Your task to perform on an android device: turn off sleep mode Image 0: 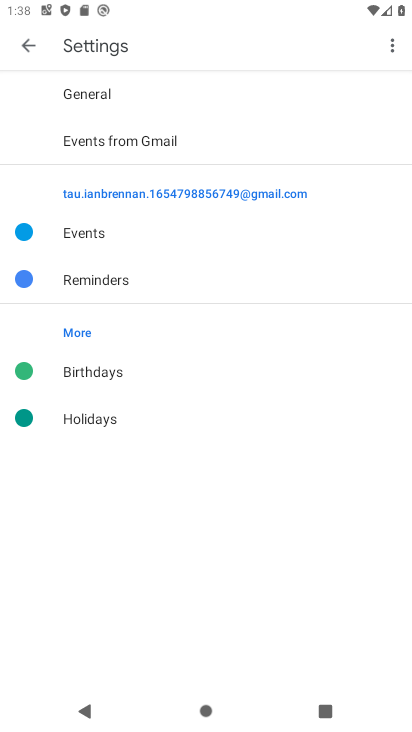
Step 0: press home button
Your task to perform on an android device: turn off sleep mode Image 1: 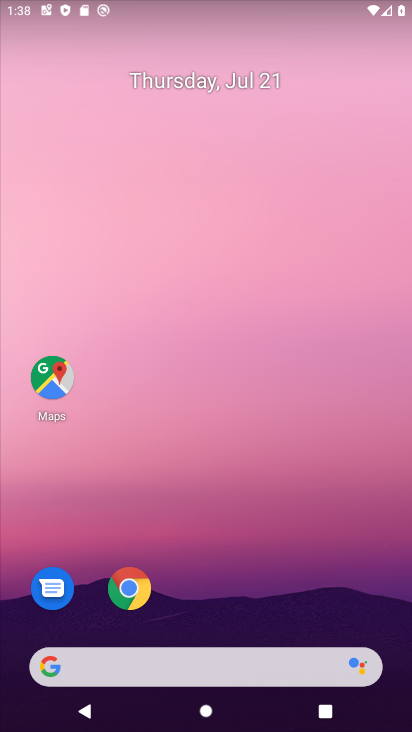
Step 1: drag from (195, 644) to (176, 27)
Your task to perform on an android device: turn off sleep mode Image 2: 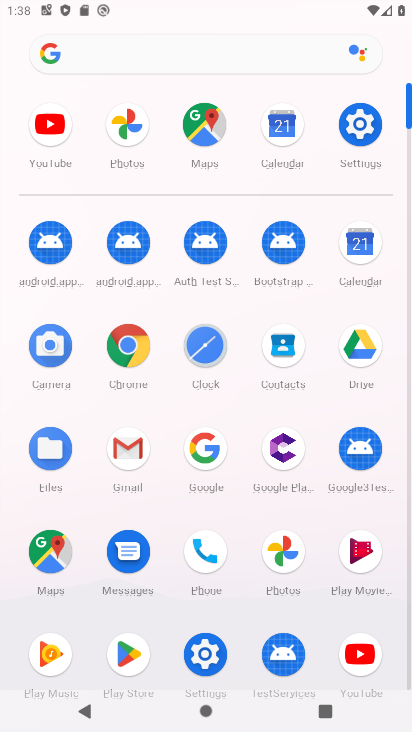
Step 2: click (356, 107)
Your task to perform on an android device: turn off sleep mode Image 3: 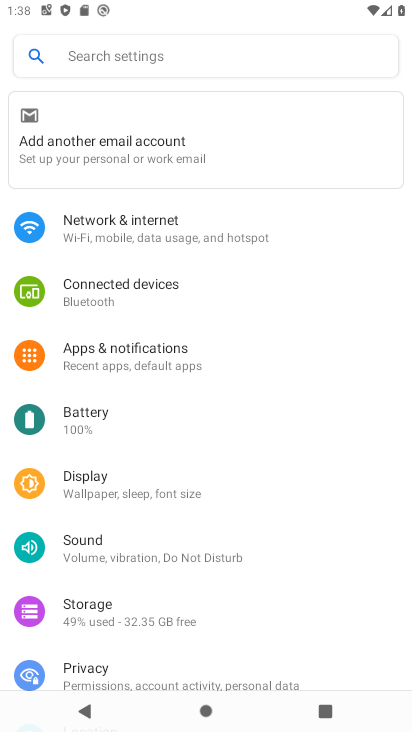
Step 3: click (104, 474)
Your task to perform on an android device: turn off sleep mode Image 4: 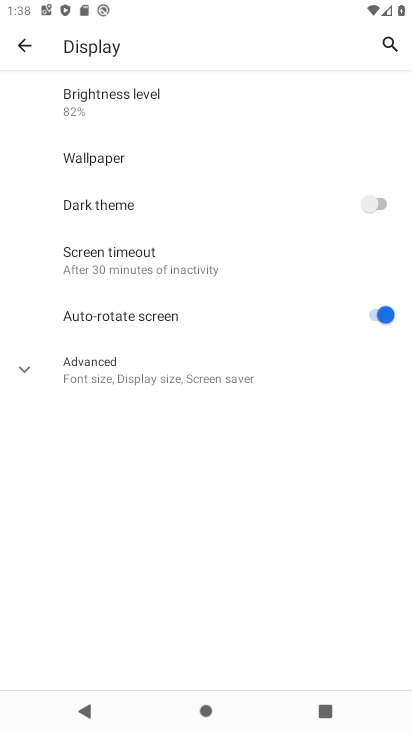
Step 4: task complete